Your task to perform on an android device: remove spam from my inbox in the gmail app Image 0: 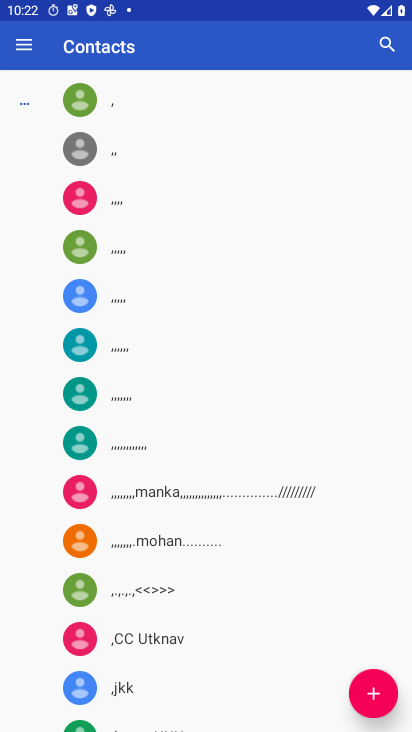
Step 0: press home button
Your task to perform on an android device: remove spam from my inbox in the gmail app Image 1: 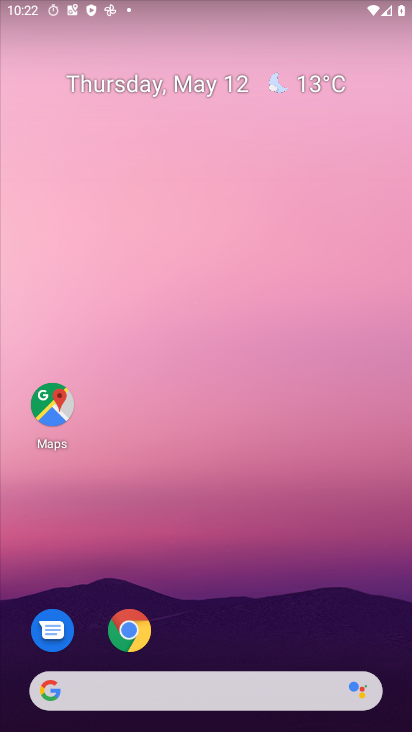
Step 1: drag from (223, 705) to (230, 277)
Your task to perform on an android device: remove spam from my inbox in the gmail app Image 2: 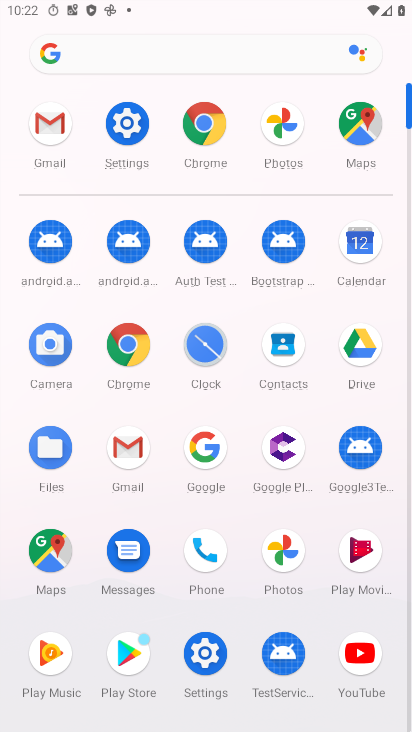
Step 2: click (116, 436)
Your task to perform on an android device: remove spam from my inbox in the gmail app Image 3: 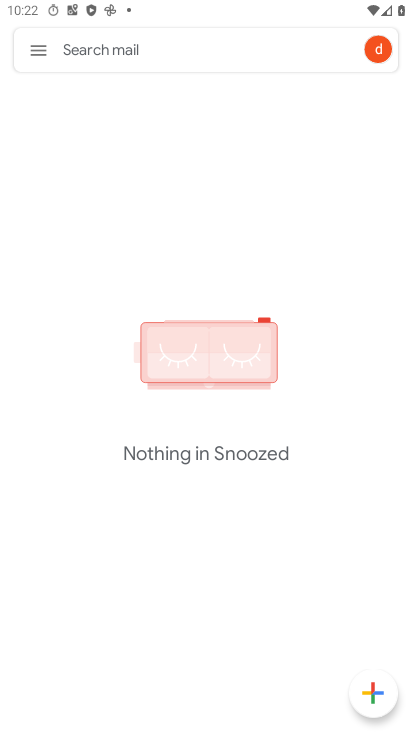
Step 3: click (30, 74)
Your task to perform on an android device: remove spam from my inbox in the gmail app Image 4: 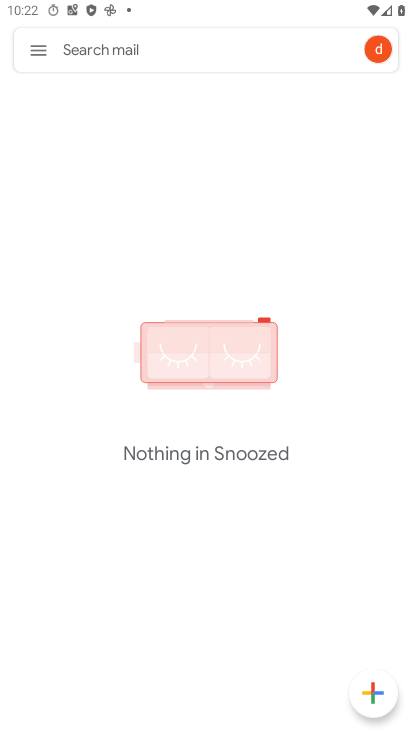
Step 4: click (48, 45)
Your task to perform on an android device: remove spam from my inbox in the gmail app Image 5: 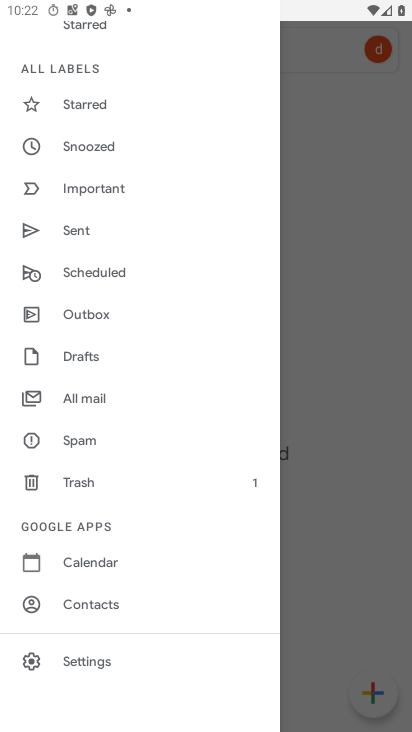
Step 5: click (96, 434)
Your task to perform on an android device: remove spam from my inbox in the gmail app Image 6: 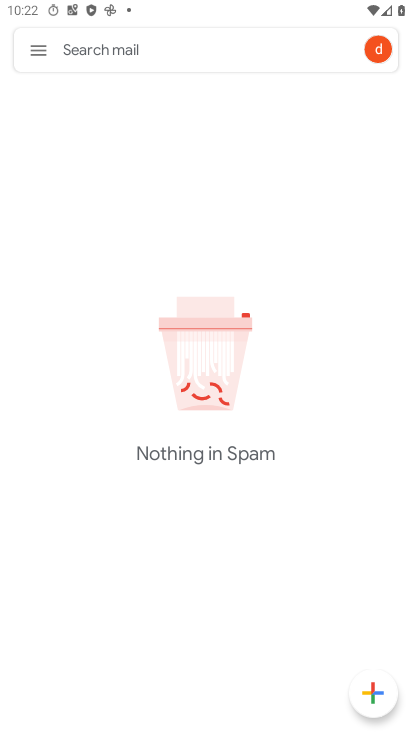
Step 6: task complete